Your task to perform on an android device: Go to Yahoo.com Image 0: 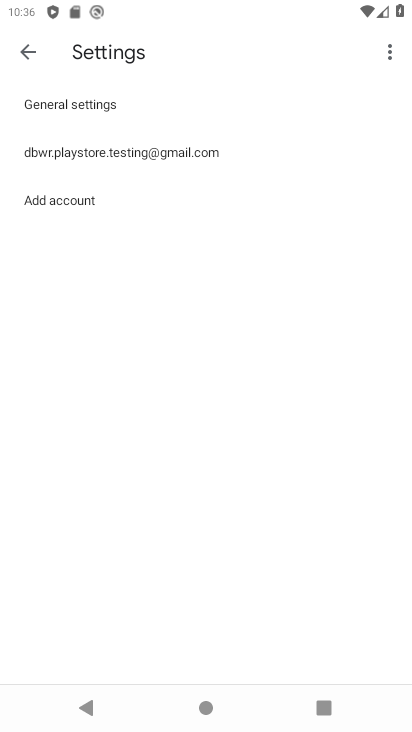
Step 0: press home button
Your task to perform on an android device: Go to Yahoo.com Image 1: 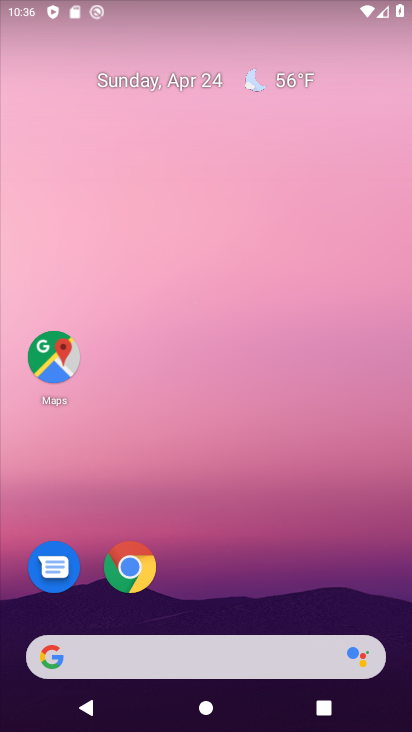
Step 1: click (132, 567)
Your task to perform on an android device: Go to Yahoo.com Image 2: 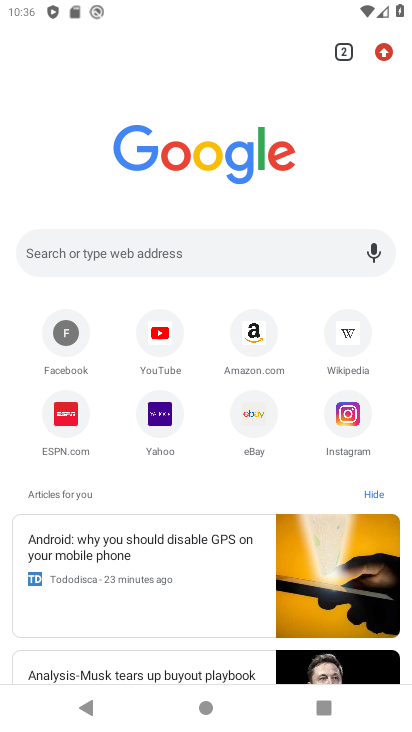
Step 2: click (195, 253)
Your task to perform on an android device: Go to Yahoo.com Image 3: 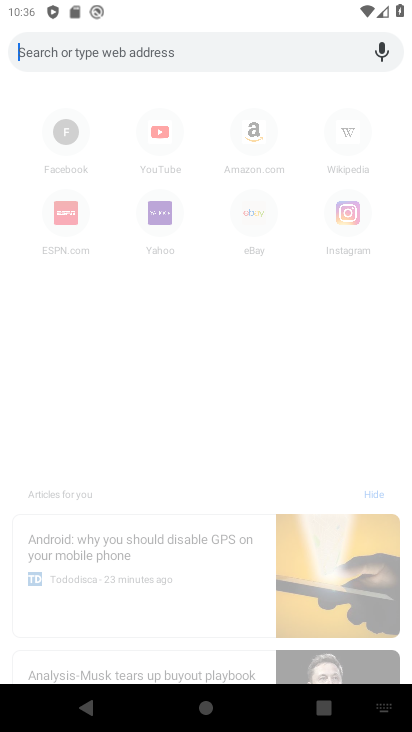
Step 3: type "Yahoo.com"
Your task to perform on an android device: Go to Yahoo.com Image 4: 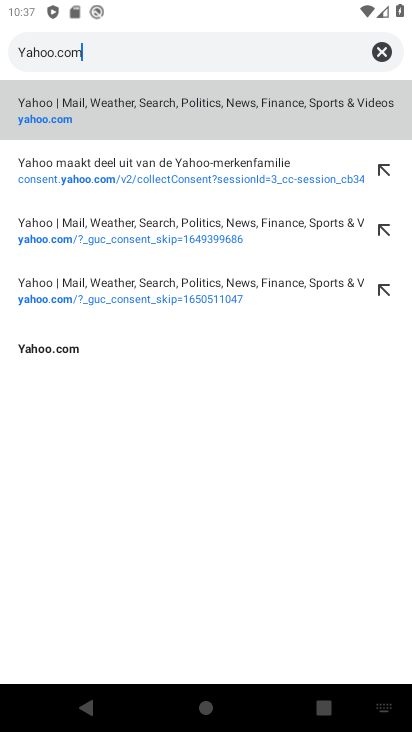
Step 4: click (37, 108)
Your task to perform on an android device: Go to Yahoo.com Image 5: 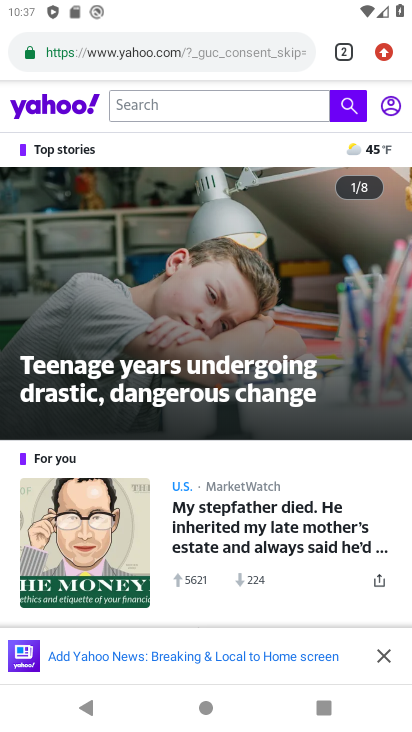
Step 5: task complete